Your task to perform on an android device: Open settings on Google Maps Image 0: 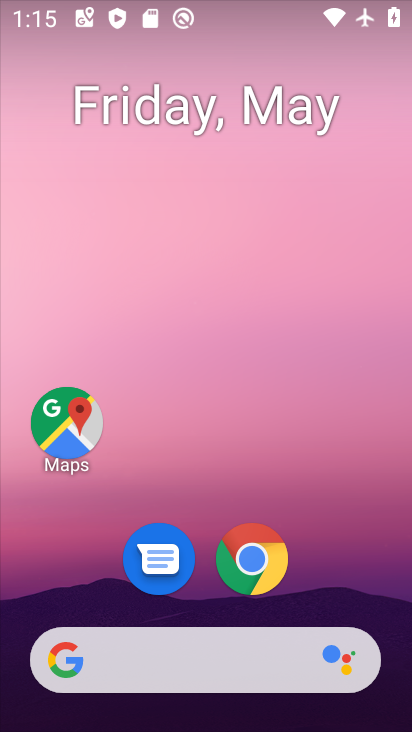
Step 0: click (66, 433)
Your task to perform on an android device: Open settings on Google Maps Image 1: 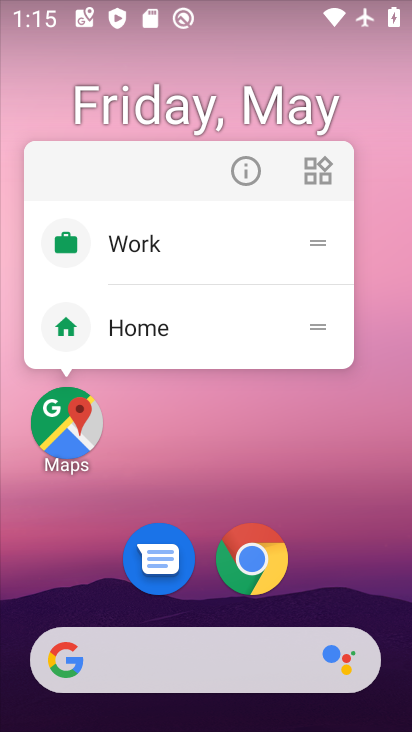
Step 1: click (66, 433)
Your task to perform on an android device: Open settings on Google Maps Image 2: 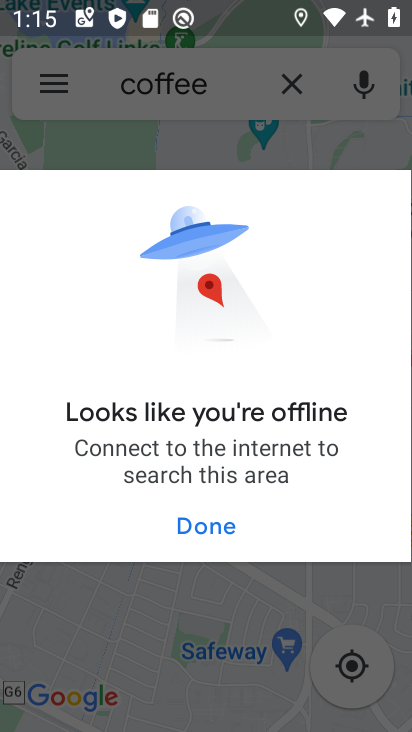
Step 2: click (198, 523)
Your task to perform on an android device: Open settings on Google Maps Image 3: 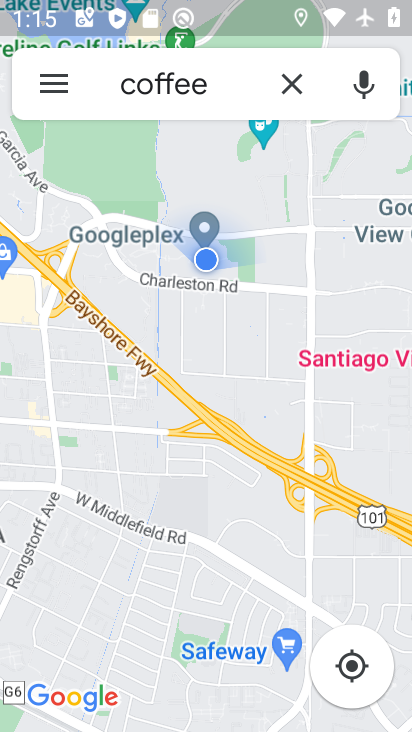
Step 3: click (231, 78)
Your task to perform on an android device: Open settings on Google Maps Image 4: 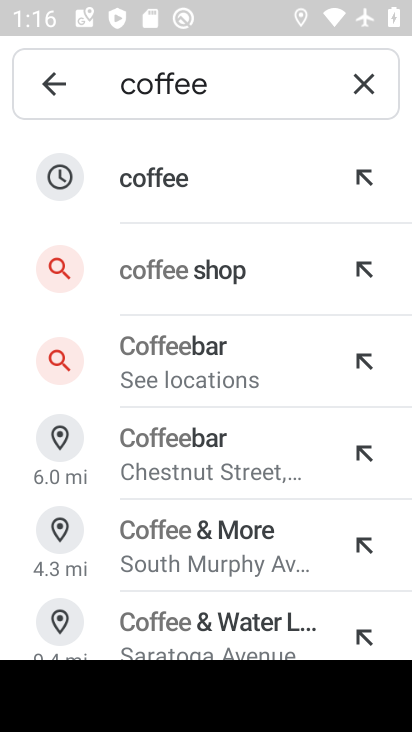
Step 4: type " shops"
Your task to perform on an android device: Open settings on Google Maps Image 5: 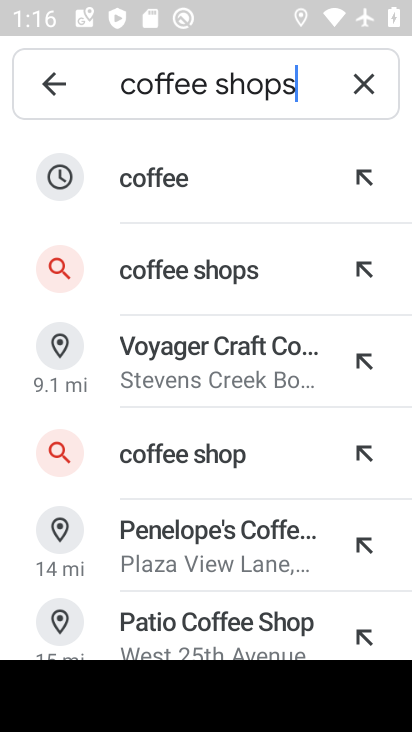
Step 5: click (185, 265)
Your task to perform on an android device: Open settings on Google Maps Image 6: 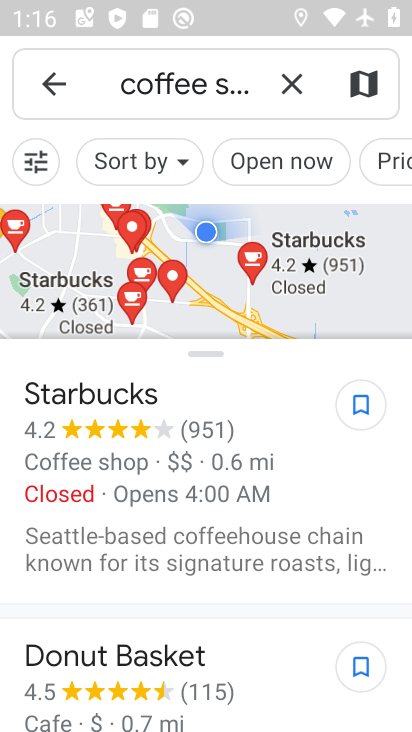
Step 6: task complete